Your task to perform on an android device: Open Android settings Image 0: 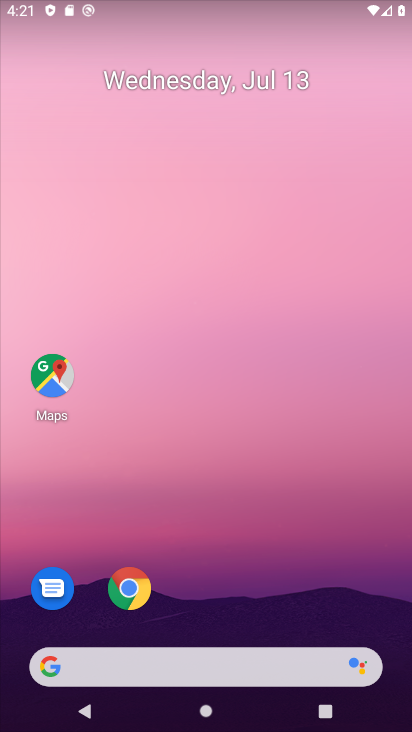
Step 0: drag from (50, 712) to (306, 38)
Your task to perform on an android device: Open Android settings Image 1: 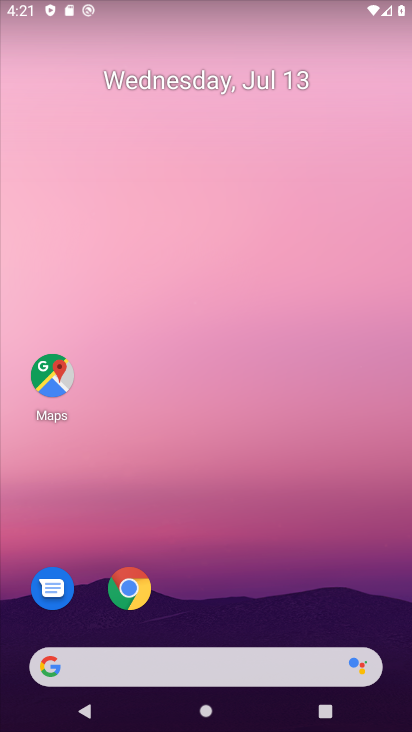
Step 1: drag from (16, 708) to (293, 42)
Your task to perform on an android device: Open Android settings Image 2: 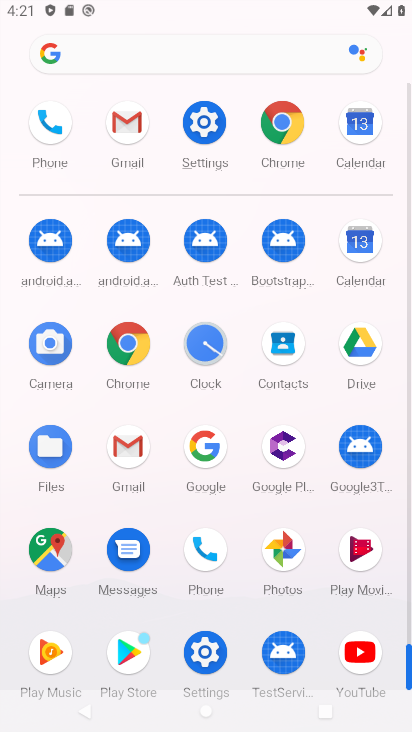
Step 2: click (201, 657)
Your task to perform on an android device: Open Android settings Image 3: 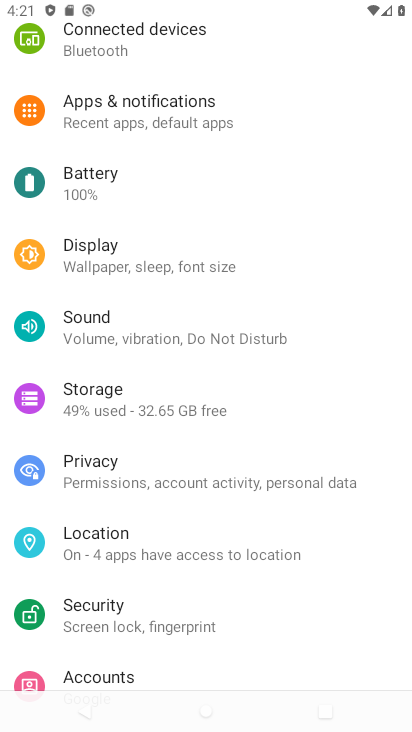
Step 3: drag from (205, 663) to (320, 2)
Your task to perform on an android device: Open Android settings Image 4: 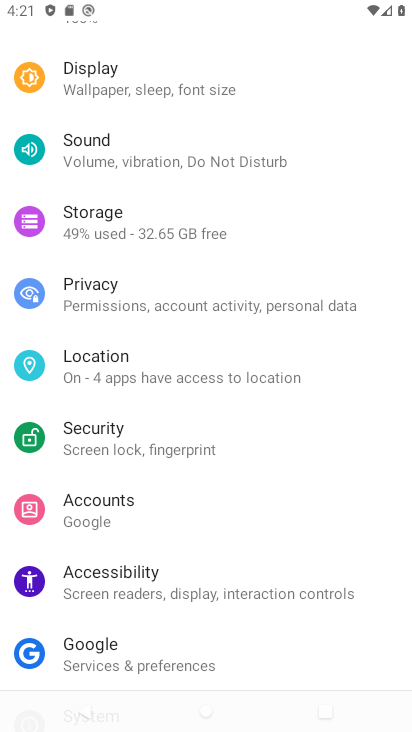
Step 4: drag from (203, 647) to (257, 355)
Your task to perform on an android device: Open Android settings Image 5: 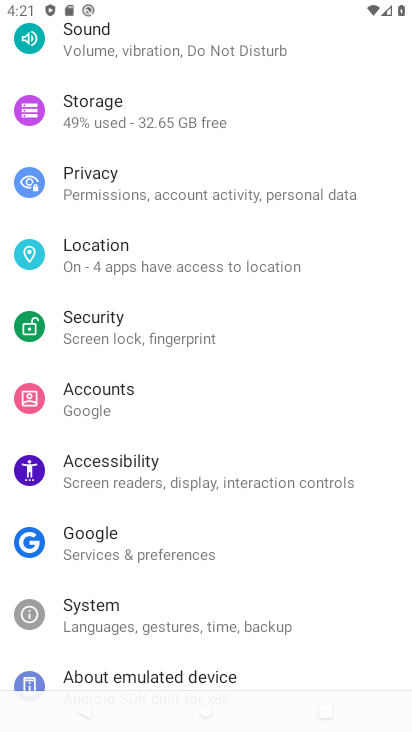
Step 5: drag from (273, 678) to (373, 152)
Your task to perform on an android device: Open Android settings Image 6: 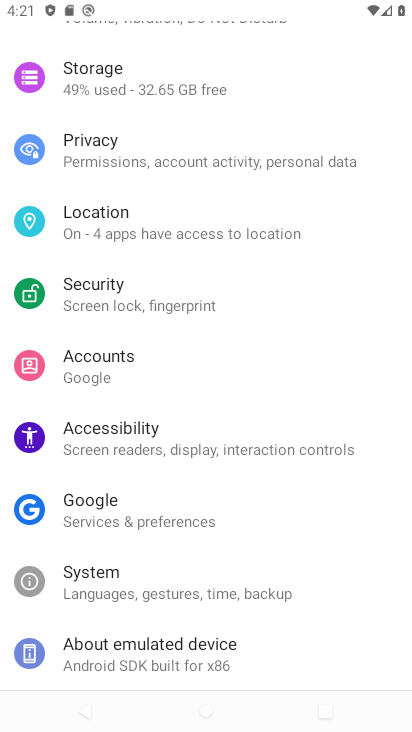
Step 6: click (151, 664)
Your task to perform on an android device: Open Android settings Image 7: 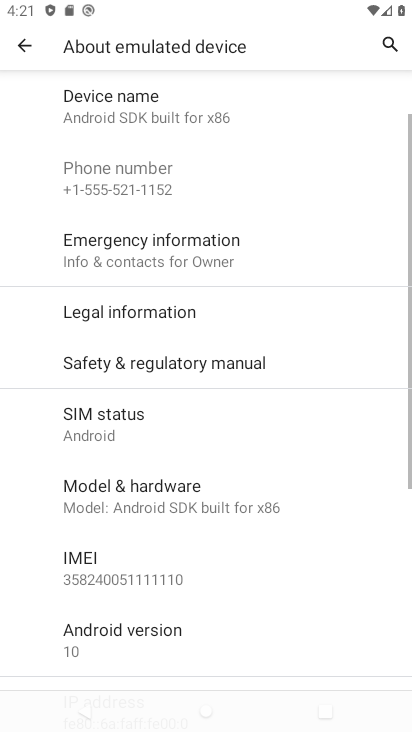
Step 7: click (110, 650)
Your task to perform on an android device: Open Android settings Image 8: 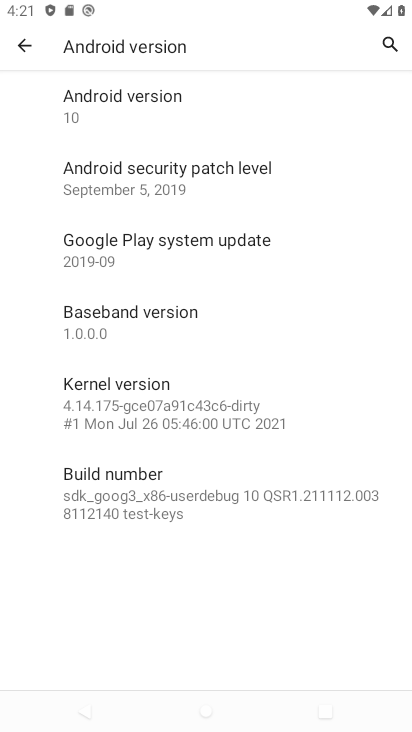
Step 8: task complete